Your task to perform on an android device: Open Google Image 0: 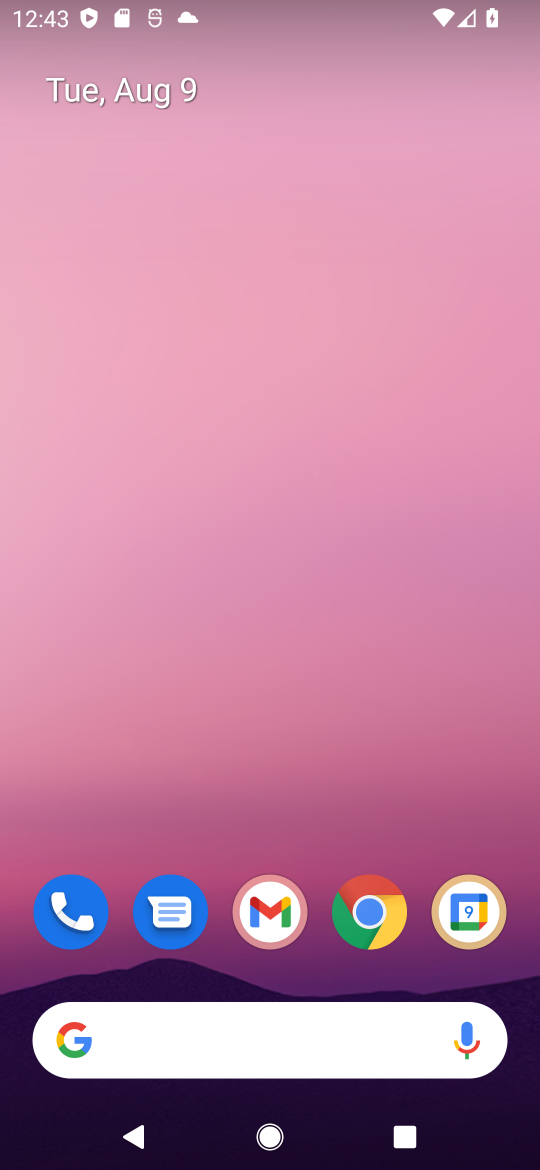
Step 0: drag from (280, 311) to (280, 221)
Your task to perform on an android device: Open Google Image 1: 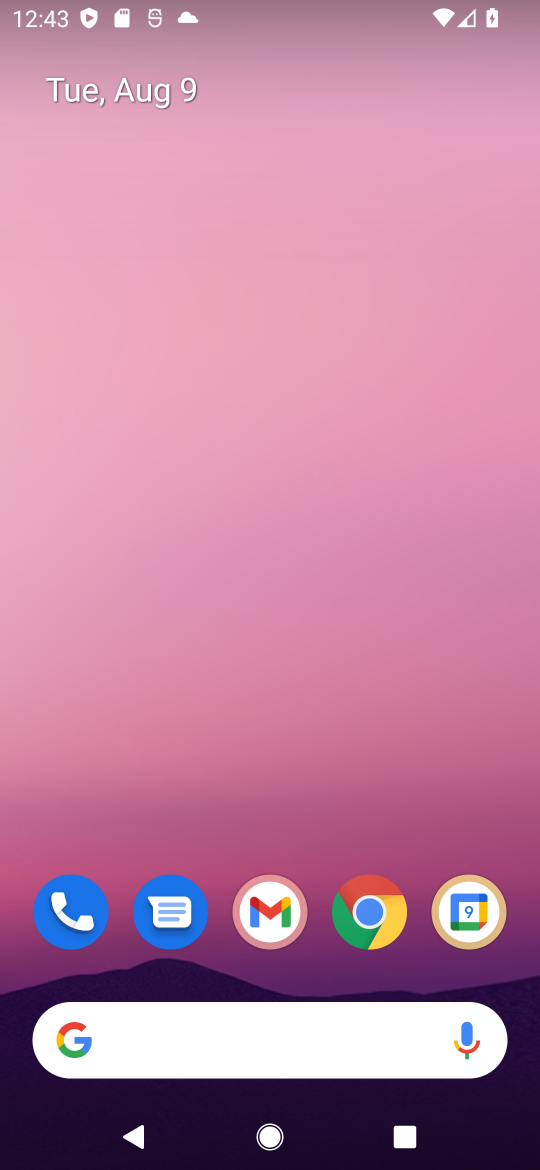
Step 1: drag from (239, 996) to (239, 326)
Your task to perform on an android device: Open Google Image 2: 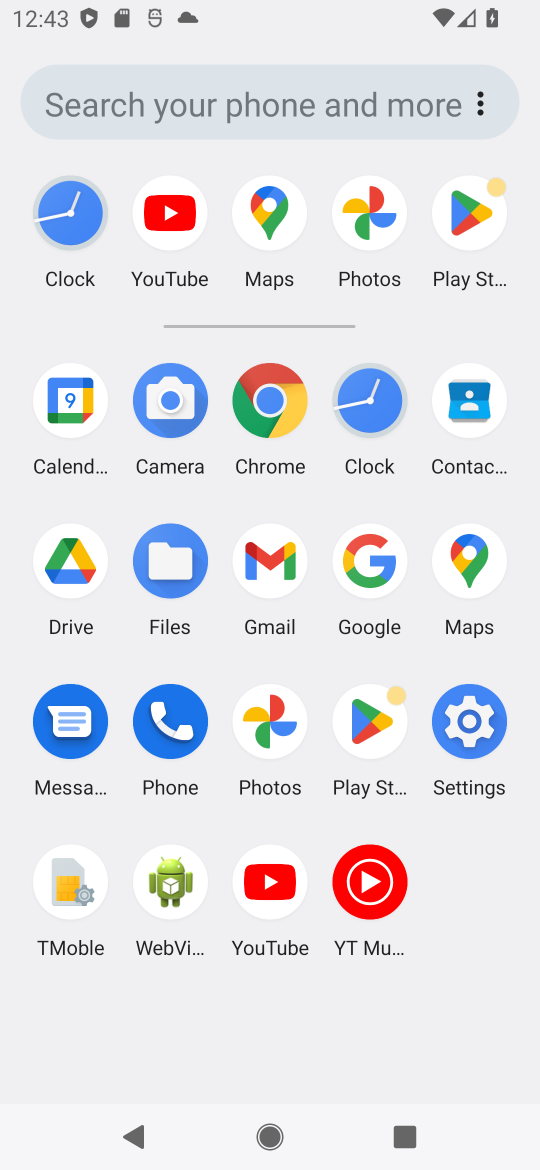
Step 2: click (351, 567)
Your task to perform on an android device: Open Google Image 3: 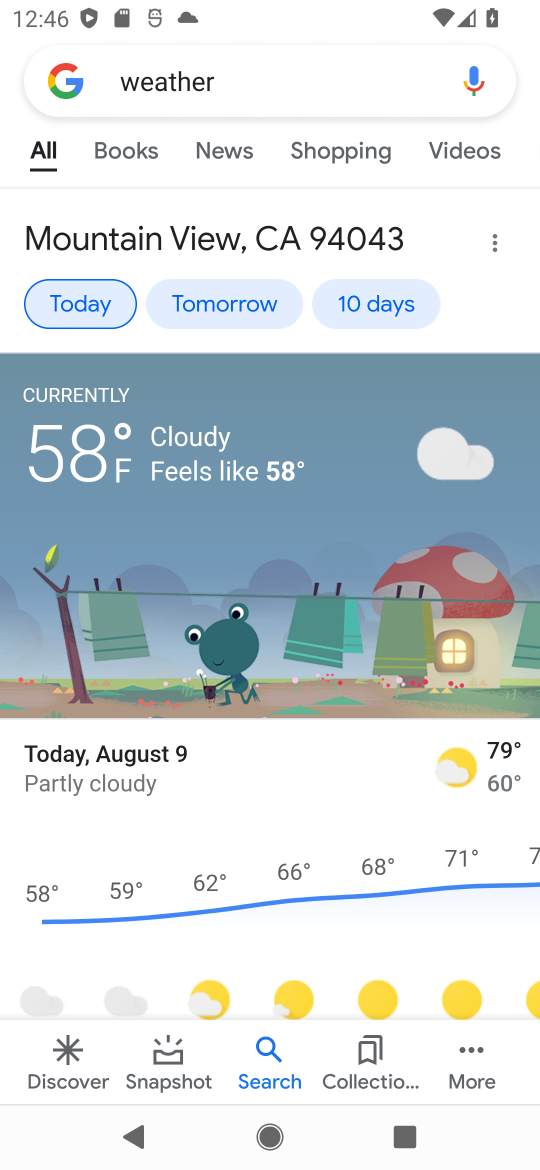
Step 3: task complete